Your task to perform on an android device: Go to Google Image 0: 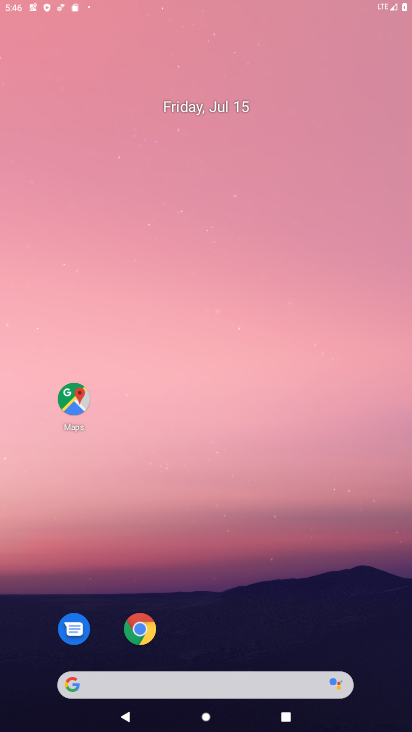
Step 0: press home button
Your task to perform on an android device: Go to Google Image 1: 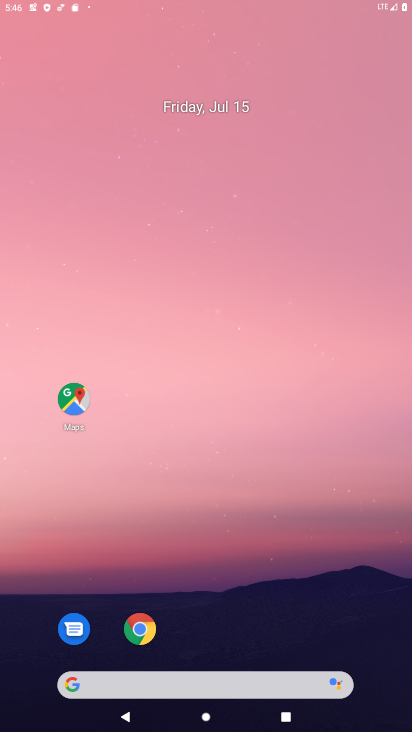
Step 1: drag from (186, 696) to (216, 461)
Your task to perform on an android device: Go to Google Image 2: 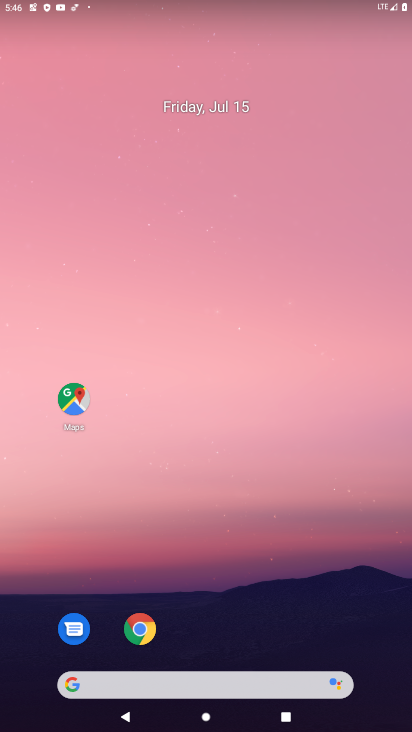
Step 2: drag from (228, 128) to (222, 485)
Your task to perform on an android device: Go to Google Image 3: 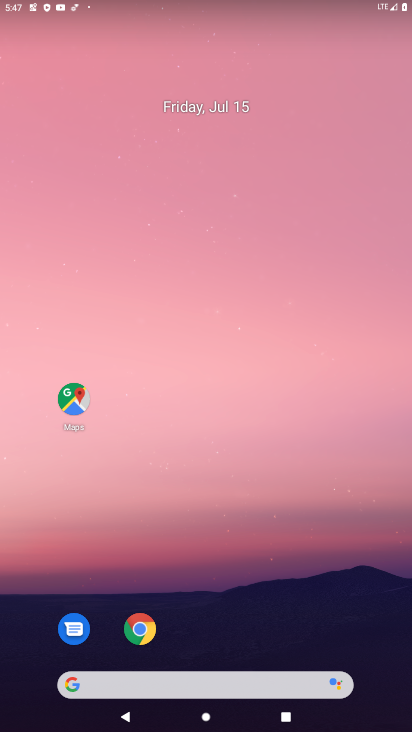
Step 3: click (73, 683)
Your task to perform on an android device: Go to Google Image 4: 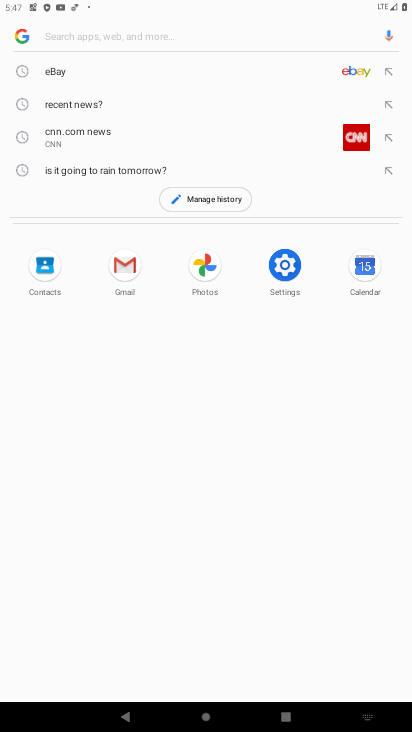
Step 4: task complete